Your task to perform on an android device: read, delete, or share a saved page in the chrome app Image 0: 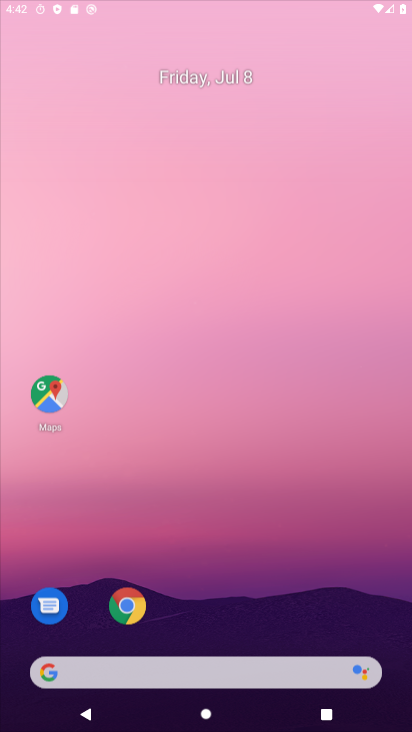
Step 0: press home button
Your task to perform on an android device: read, delete, or share a saved page in the chrome app Image 1: 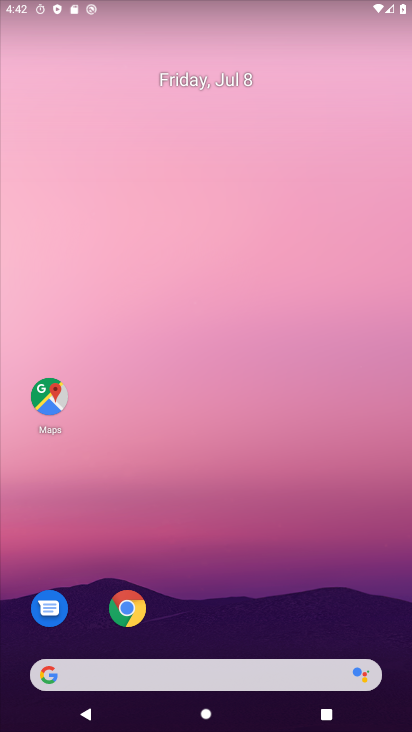
Step 1: click (120, 615)
Your task to perform on an android device: read, delete, or share a saved page in the chrome app Image 2: 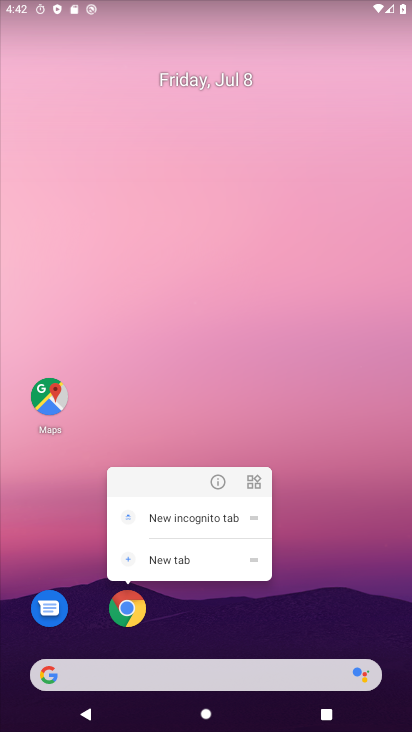
Step 2: click (127, 605)
Your task to perform on an android device: read, delete, or share a saved page in the chrome app Image 3: 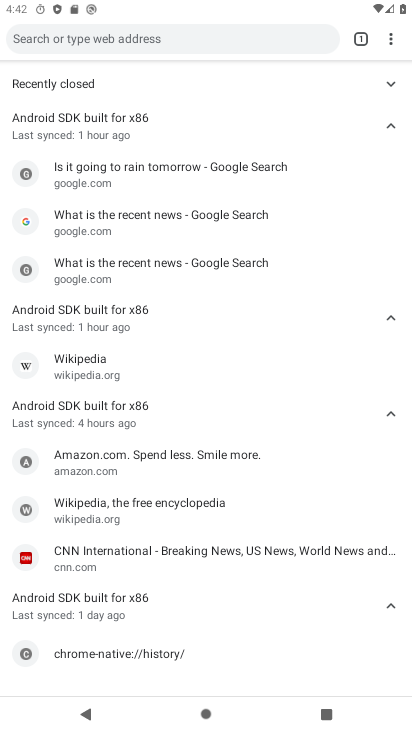
Step 3: drag from (391, 35) to (281, 259)
Your task to perform on an android device: read, delete, or share a saved page in the chrome app Image 4: 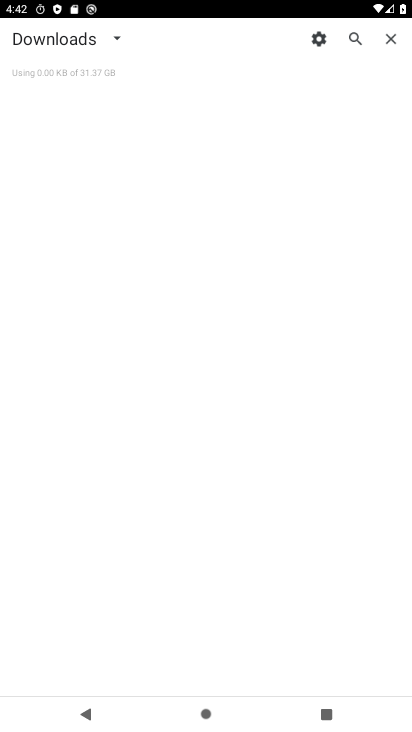
Step 4: click (115, 35)
Your task to perform on an android device: read, delete, or share a saved page in the chrome app Image 5: 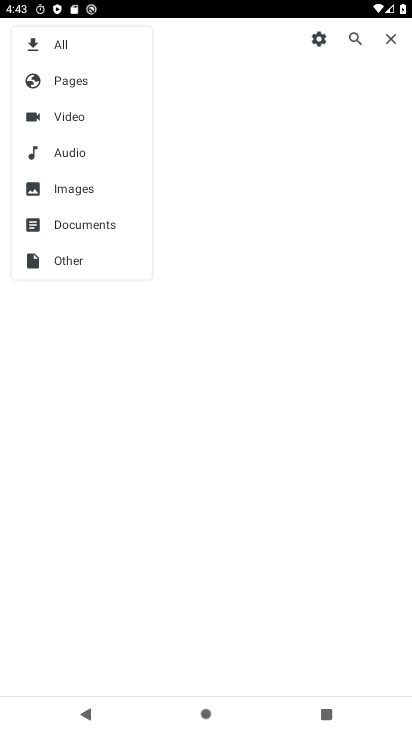
Step 5: click (60, 37)
Your task to perform on an android device: read, delete, or share a saved page in the chrome app Image 6: 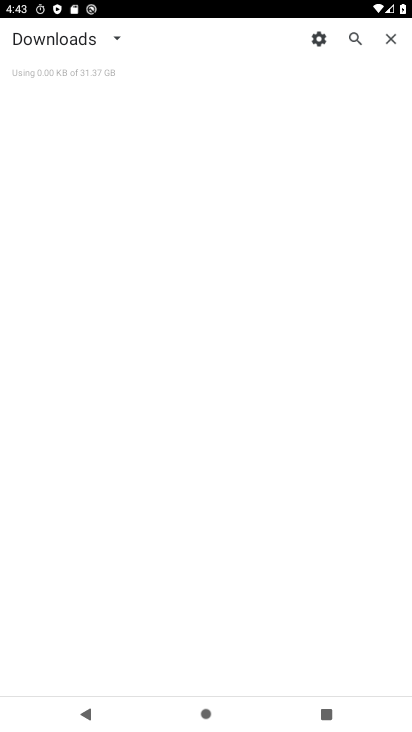
Step 6: task complete